Your task to perform on an android device: turn off smart reply in the gmail app Image 0: 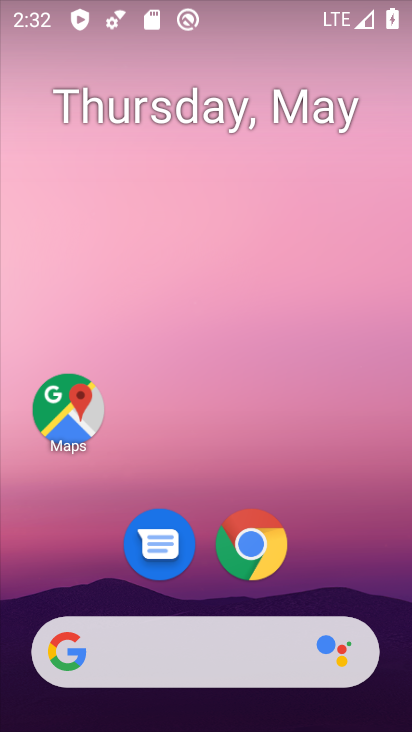
Step 0: drag from (259, 710) to (312, 162)
Your task to perform on an android device: turn off smart reply in the gmail app Image 1: 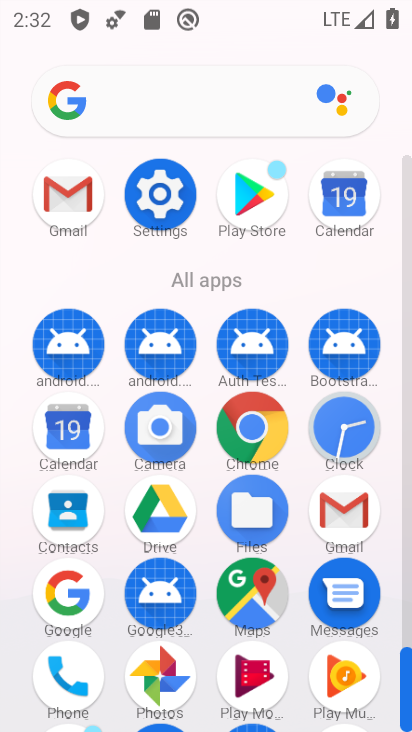
Step 1: click (64, 189)
Your task to perform on an android device: turn off smart reply in the gmail app Image 2: 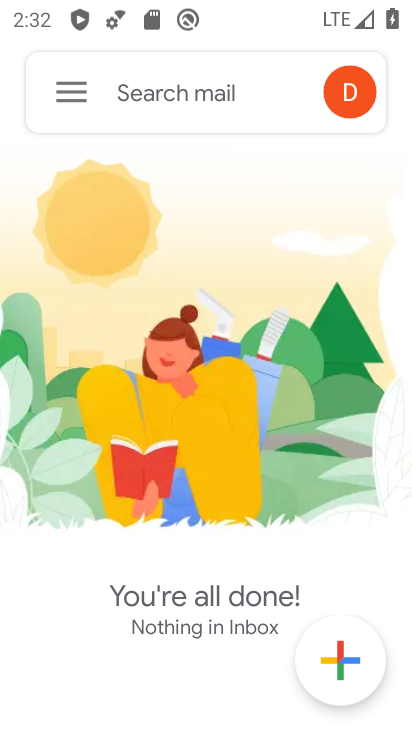
Step 2: click (65, 104)
Your task to perform on an android device: turn off smart reply in the gmail app Image 3: 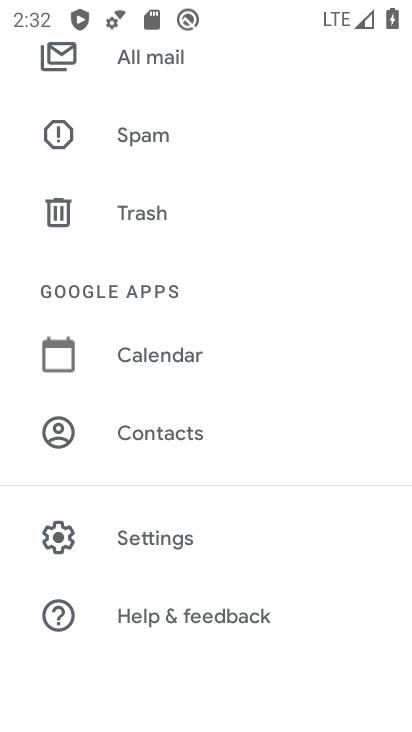
Step 3: click (152, 543)
Your task to perform on an android device: turn off smart reply in the gmail app Image 4: 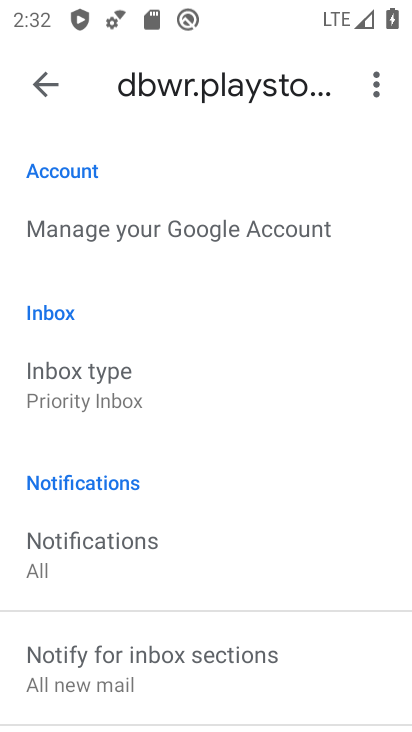
Step 4: drag from (272, 639) to (230, 213)
Your task to perform on an android device: turn off smart reply in the gmail app Image 5: 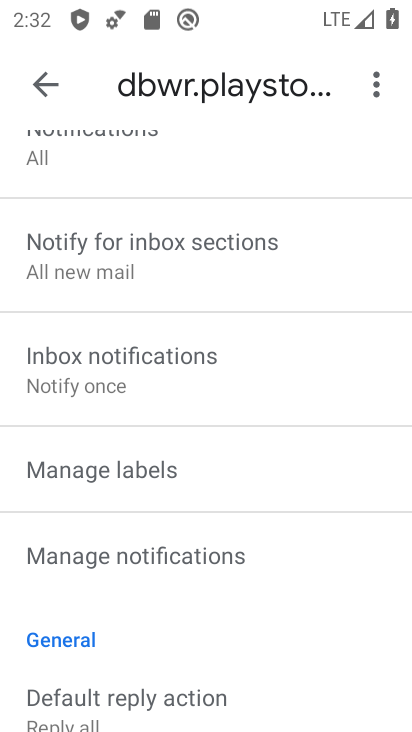
Step 5: drag from (290, 621) to (225, 220)
Your task to perform on an android device: turn off smart reply in the gmail app Image 6: 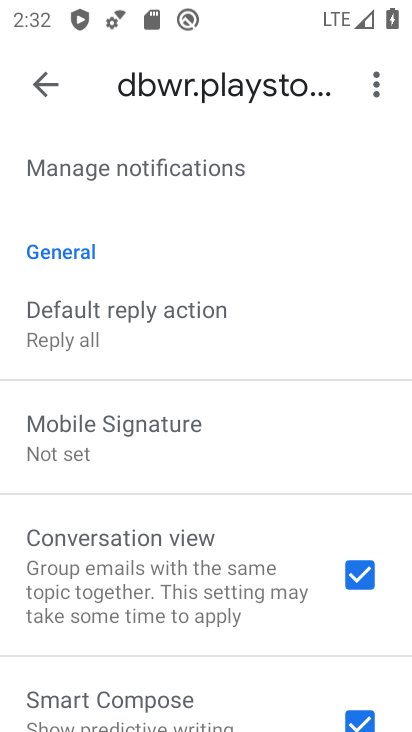
Step 6: drag from (225, 621) to (214, 235)
Your task to perform on an android device: turn off smart reply in the gmail app Image 7: 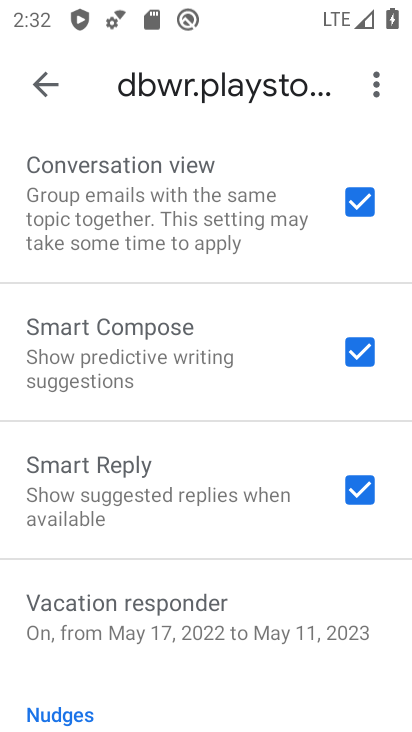
Step 7: click (371, 495)
Your task to perform on an android device: turn off smart reply in the gmail app Image 8: 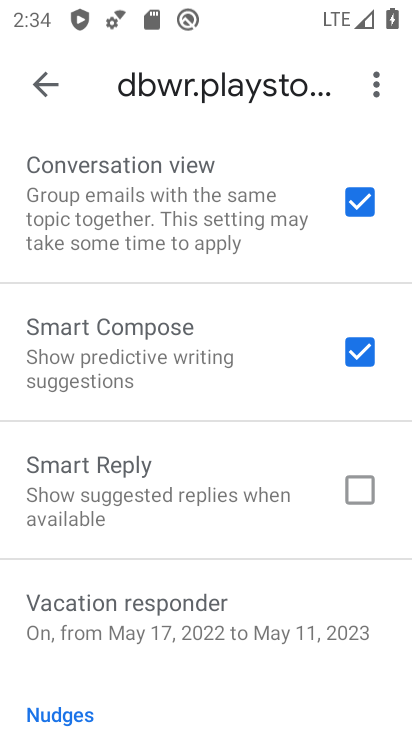
Step 8: task complete